Your task to perform on an android device: Search for pizza restaurants on Maps Image 0: 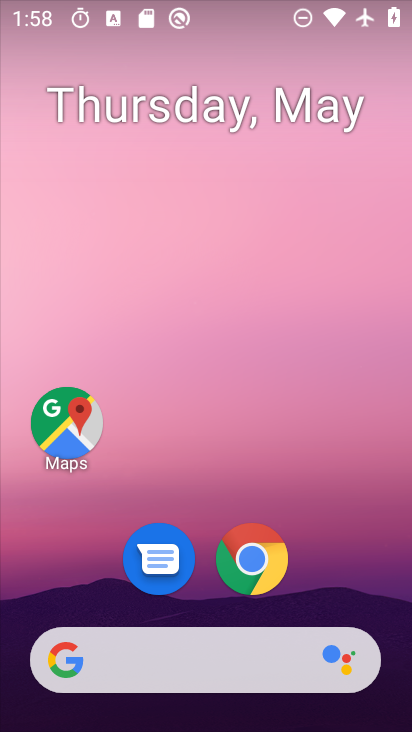
Step 0: click (51, 432)
Your task to perform on an android device: Search for pizza restaurants on Maps Image 1: 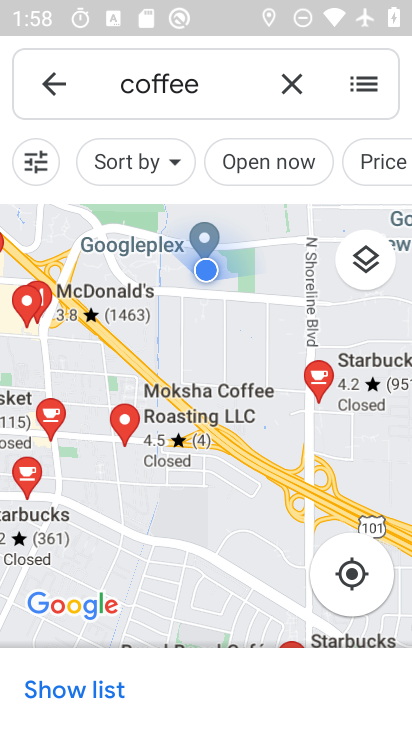
Step 1: click (299, 85)
Your task to perform on an android device: Search for pizza restaurants on Maps Image 2: 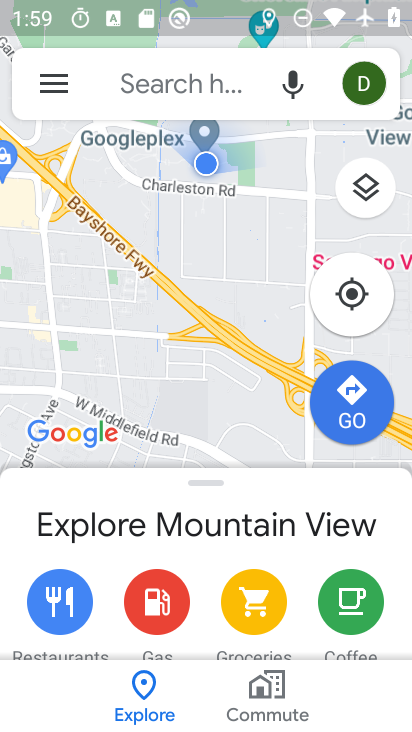
Step 2: click (180, 79)
Your task to perform on an android device: Search for pizza restaurants on Maps Image 3: 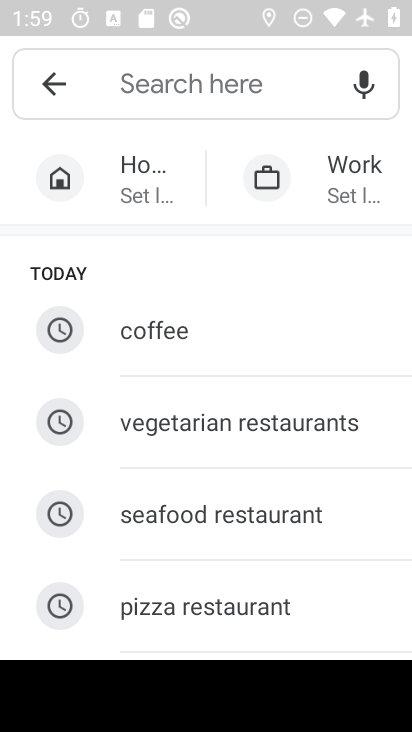
Step 3: click (238, 590)
Your task to perform on an android device: Search for pizza restaurants on Maps Image 4: 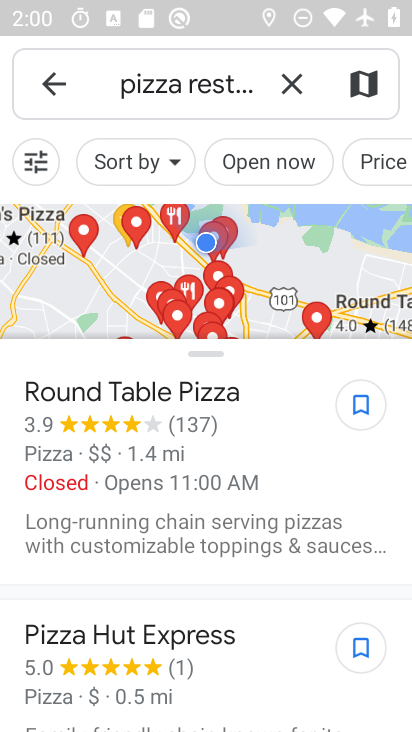
Step 4: task complete